Your task to perform on an android device: open app "Instagram" (install if not already installed) Image 0: 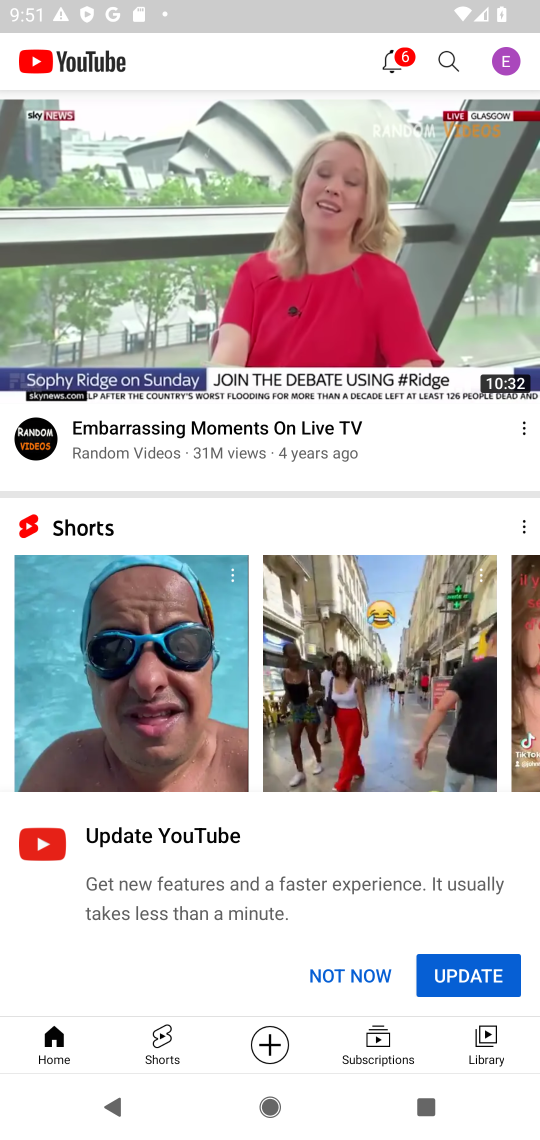
Step 0: press home button
Your task to perform on an android device: open app "Instagram" (install if not already installed) Image 1: 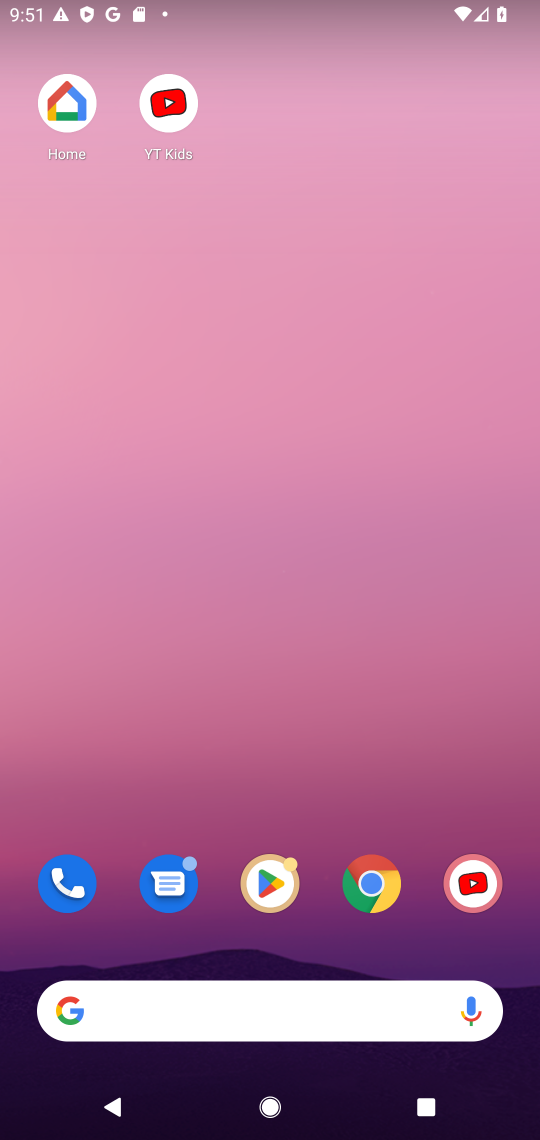
Step 1: drag from (432, 815) to (446, 49)
Your task to perform on an android device: open app "Instagram" (install if not already installed) Image 2: 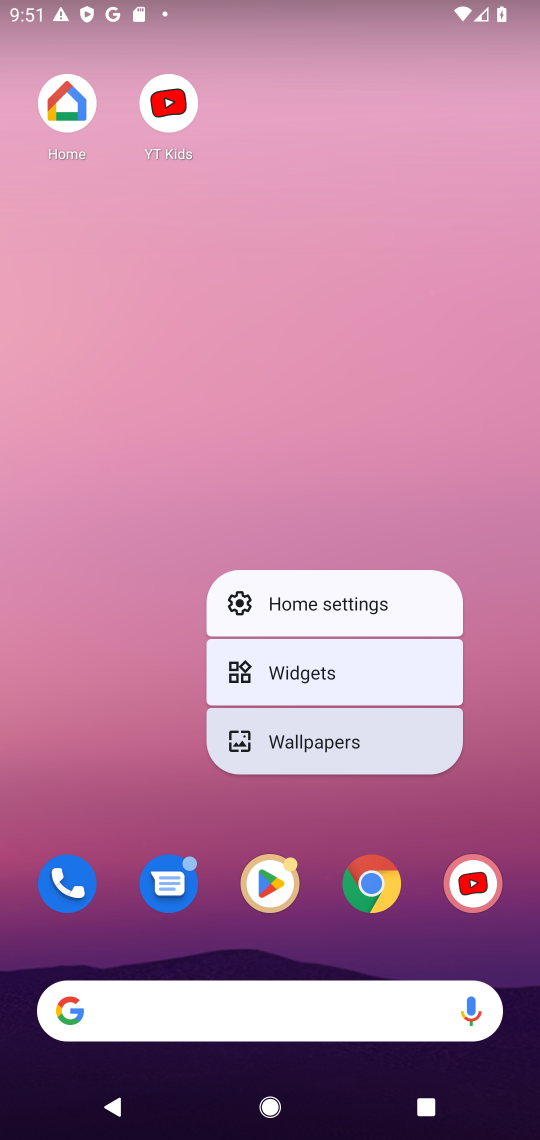
Step 2: click (489, 497)
Your task to perform on an android device: open app "Instagram" (install if not already installed) Image 3: 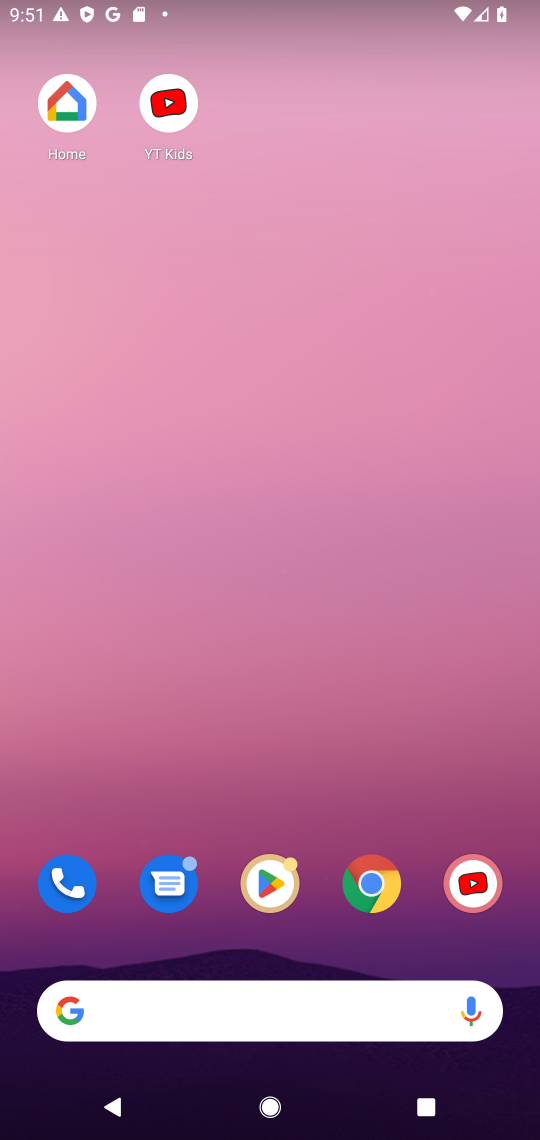
Step 3: drag from (424, 734) to (431, 51)
Your task to perform on an android device: open app "Instagram" (install if not already installed) Image 4: 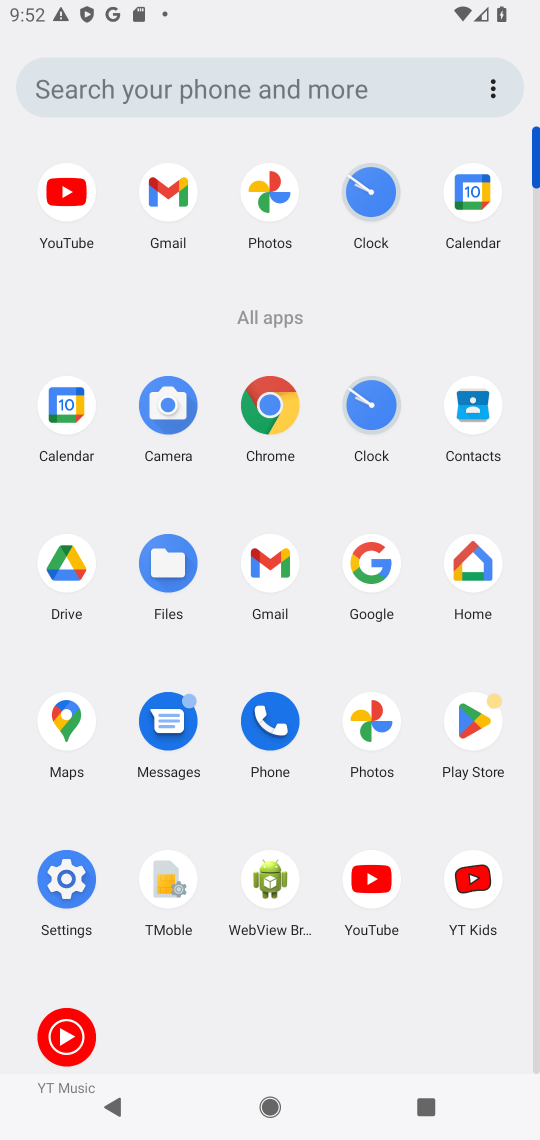
Step 4: click (468, 719)
Your task to perform on an android device: open app "Instagram" (install if not already installed) Image 5: 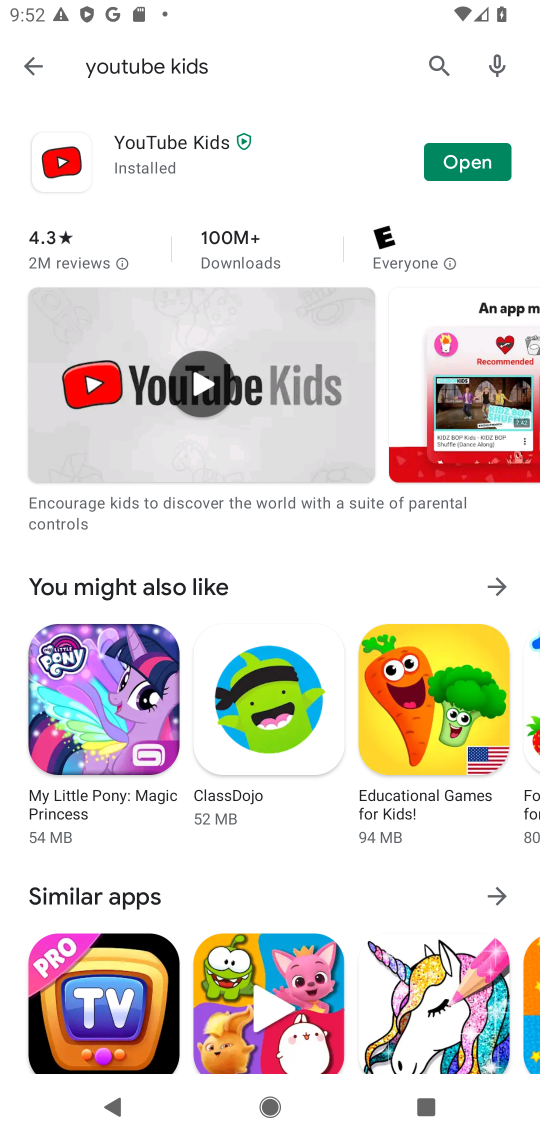
Step 5: click (439, 64)
Your task to perform on an android device: open app "Instagram" (install if not already installed) Image 6: 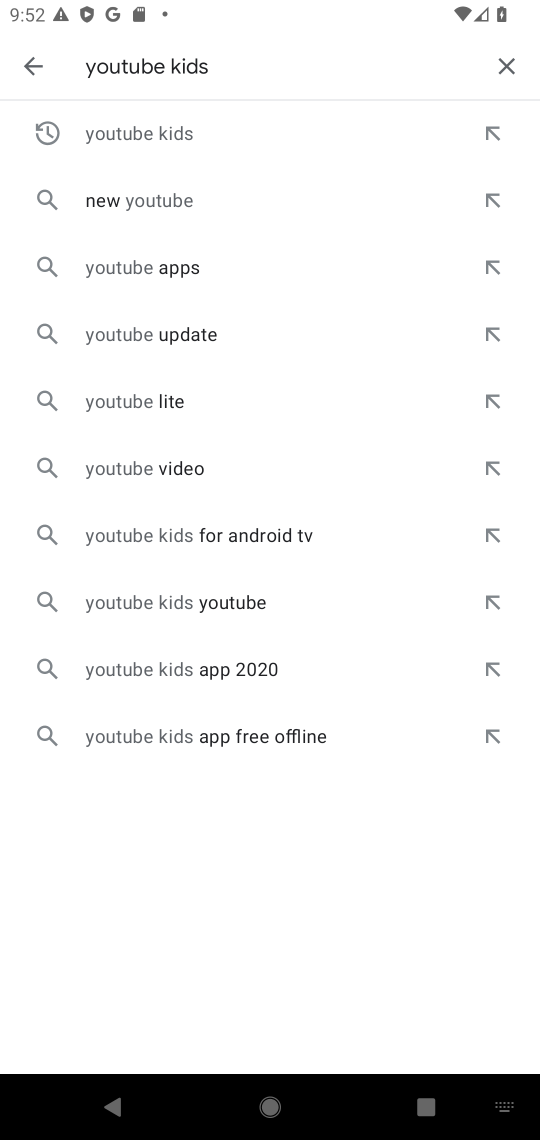
Step 6: click (510, 56)
Your task to perform on an android device: open app "Instagram" (install if not already installed) Image 7: 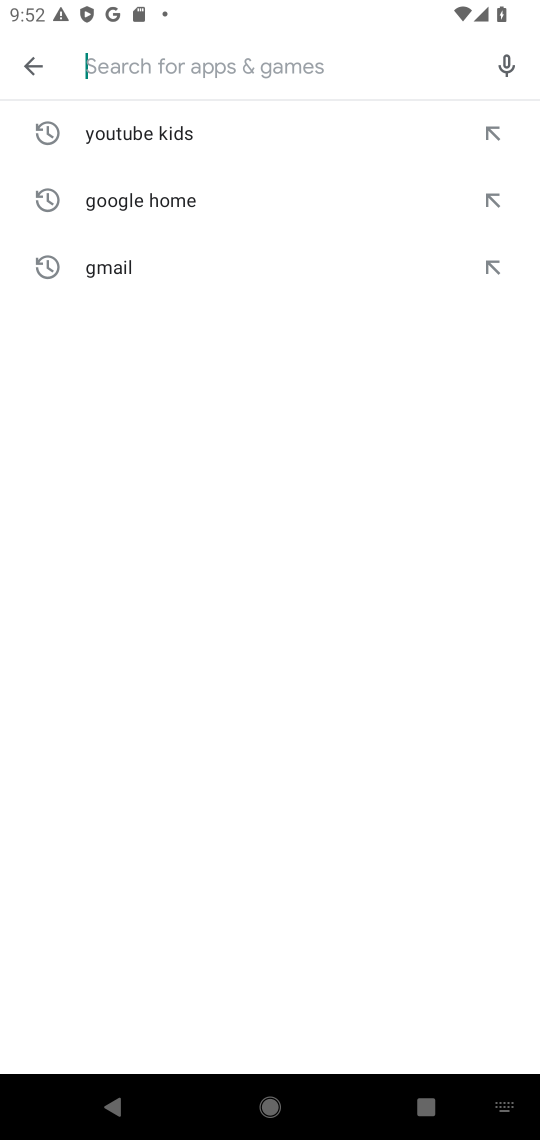
Step 7: type "instagram"
Your task to perform on an android device: open app "Instagram" (install if not already installed) Image 8: 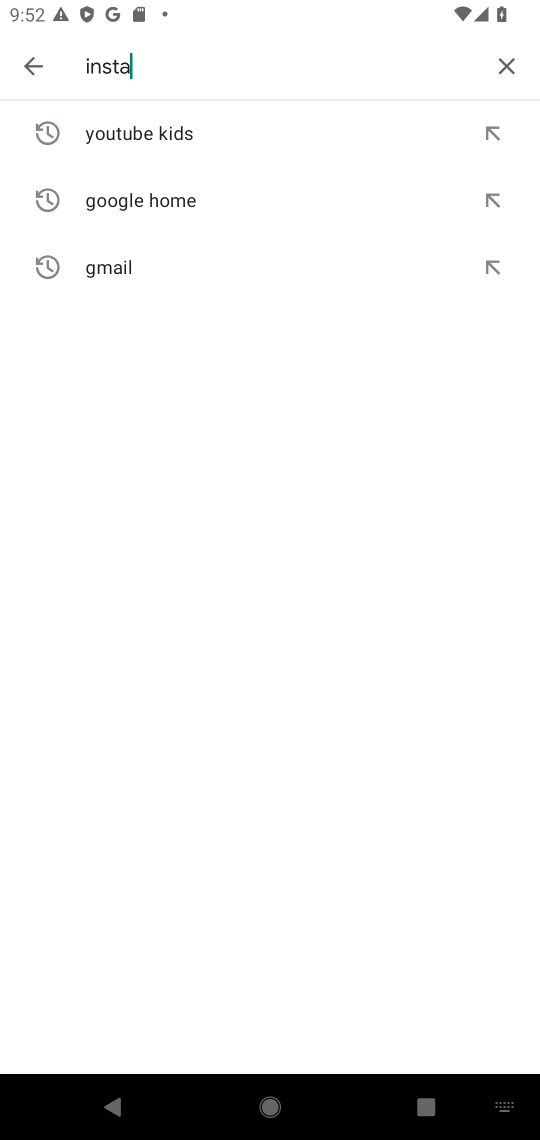
Step 8: press enter
Your task to perform on an android device: open app "Instagram" (install if not already installed) Image 9: 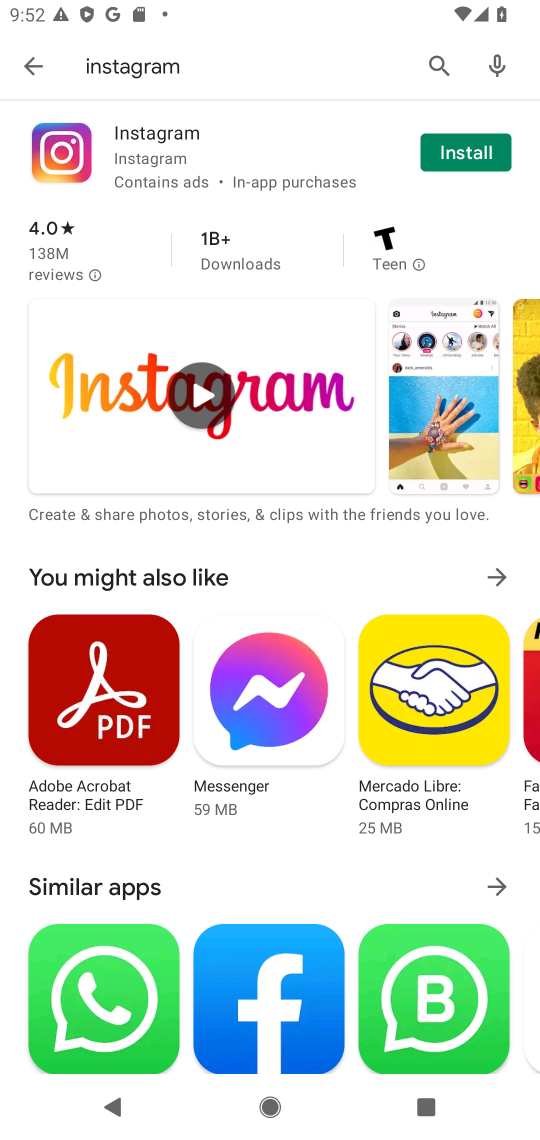
Step 9: click (479, 152)
Your task to perform on an android device: open app "Instagram" (install if not already installed) Image 10: 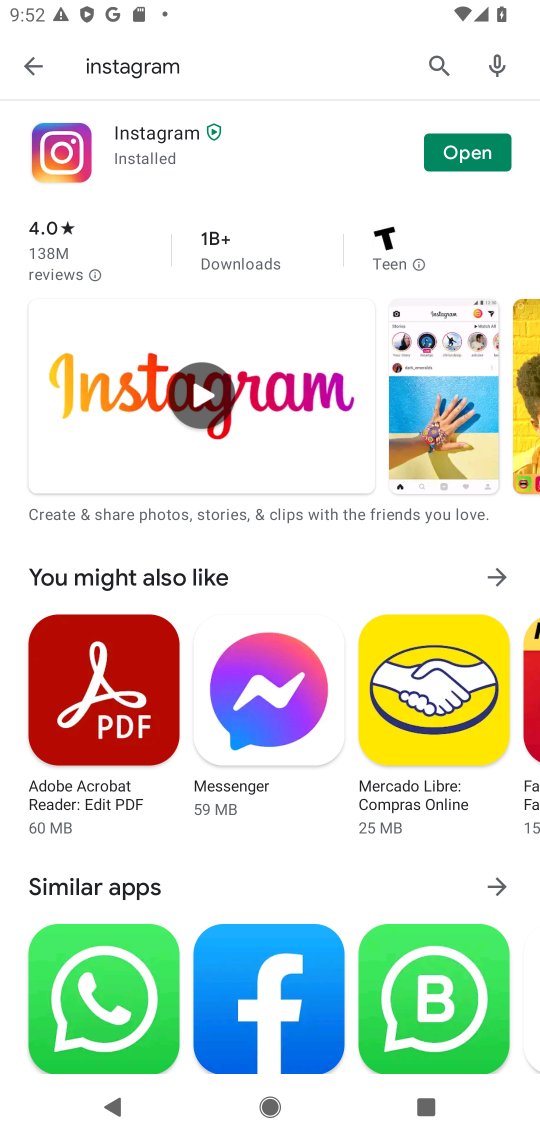
Step 10: click (485, 162)
Your task to perform on an android device: open app "Instagram" (install if not already installed) Image 11: 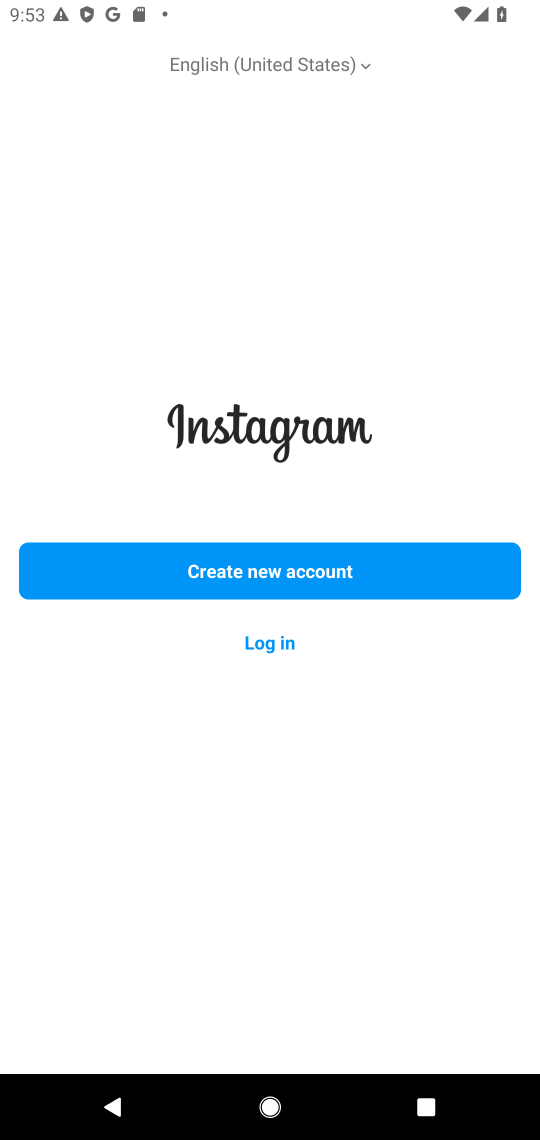
Step 11: task complete